Your task to perform on an android device: Is it going to rain today? Image 0: 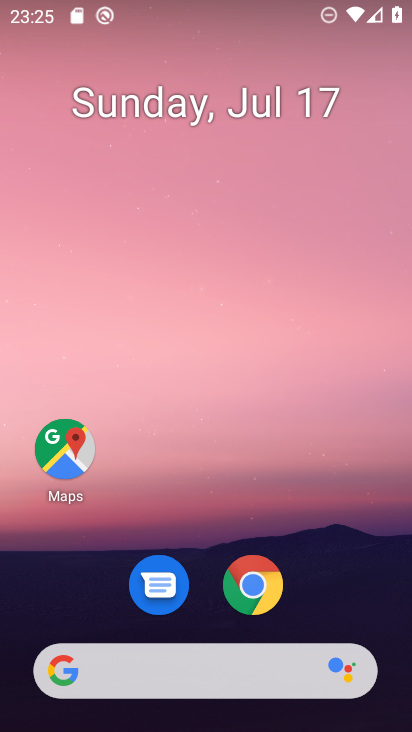
Step 0: press home button
Your task to perform on an android device: Is it going to rain today? Image 1: 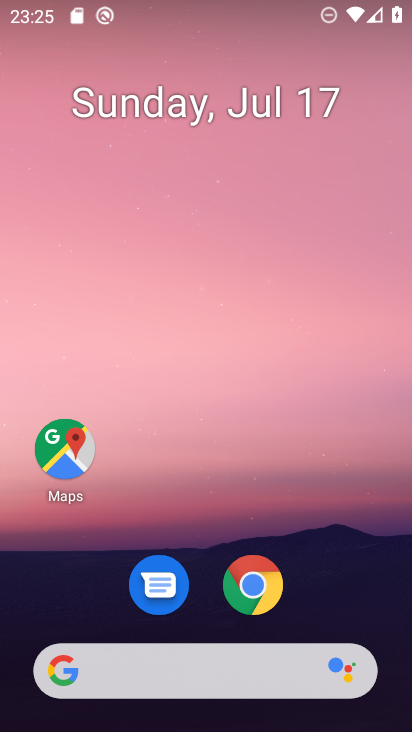
Step 1: click (177, 670)
Your task to perform on an android device: Is it going to rain today? Image 2: 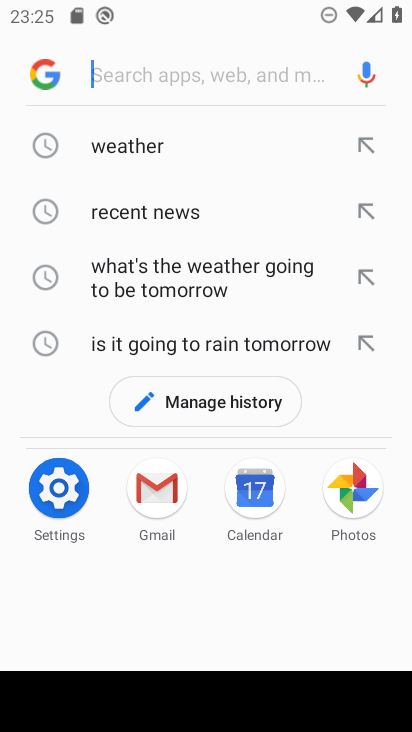
Step 2: click (144, 157)
Your task to perform on an android device: Is it going to rain today? Image 3: 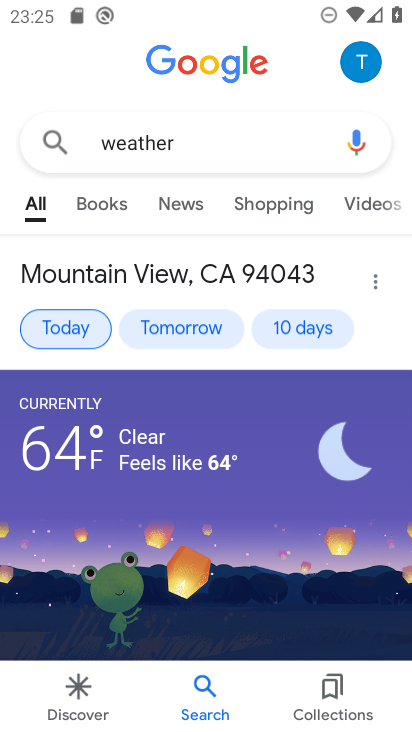
Step 3: task complete